Your task to perform on an android device: turn smart compose on in the gmail app Image 0: 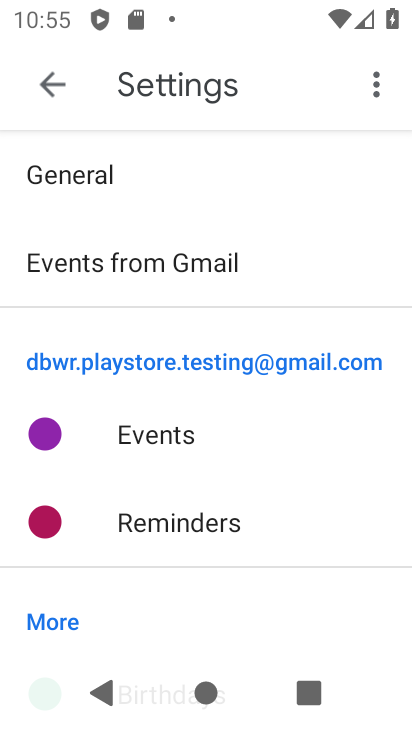
Step 0: press home button
Your task to perform on an android device: turn smart compose on in the gmail app Image 1: 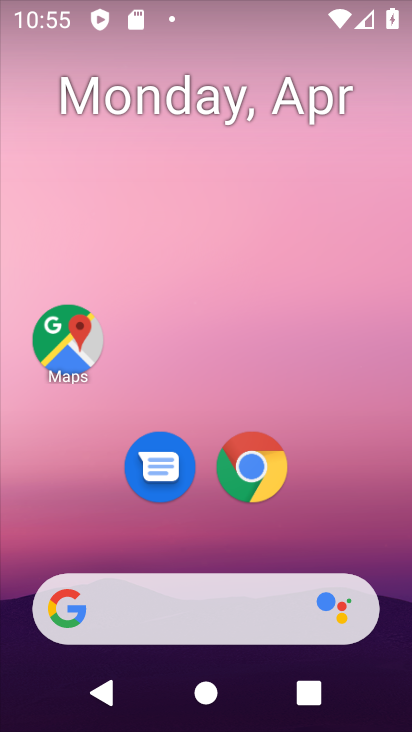
Step 1: drag from (314, 508) to (337, 134)
Your task to perform on an android device: turn smart compose on in the gmail app Image 2: 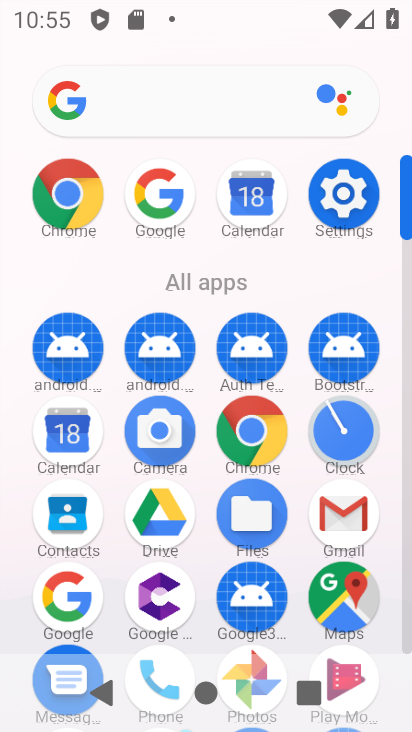
Step 2: click (354, 520)
Your task to perform on an android device: turn smart compose on in the gmail app Image 3: 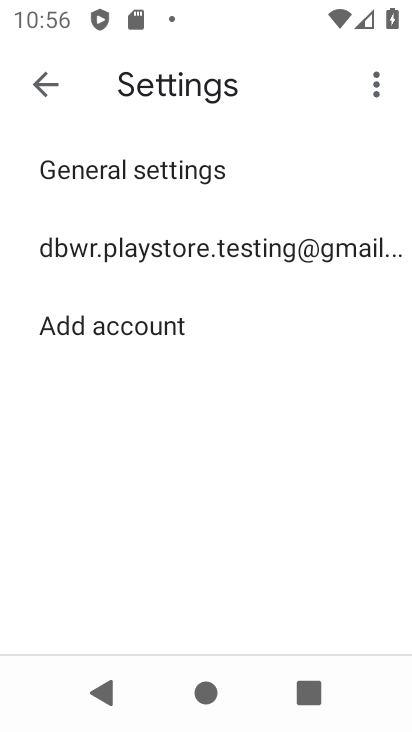
Step 3: click (179, 247)
Your task to perform on an android device: turn smart compose on in the gmail app Image 4: 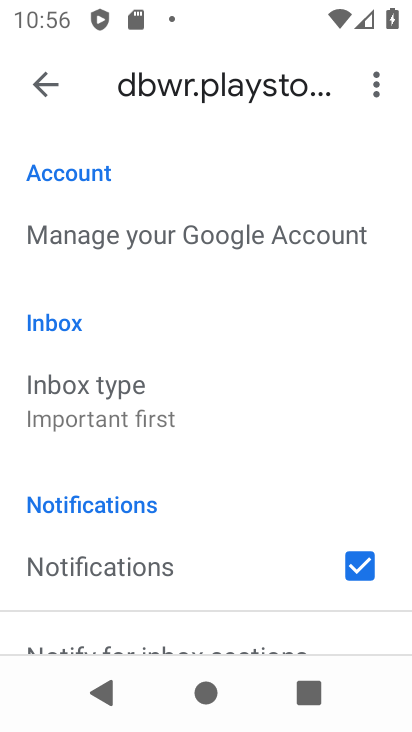
Step 4: task complete